Your task to perform on an android device: What's the weather? Image 0: 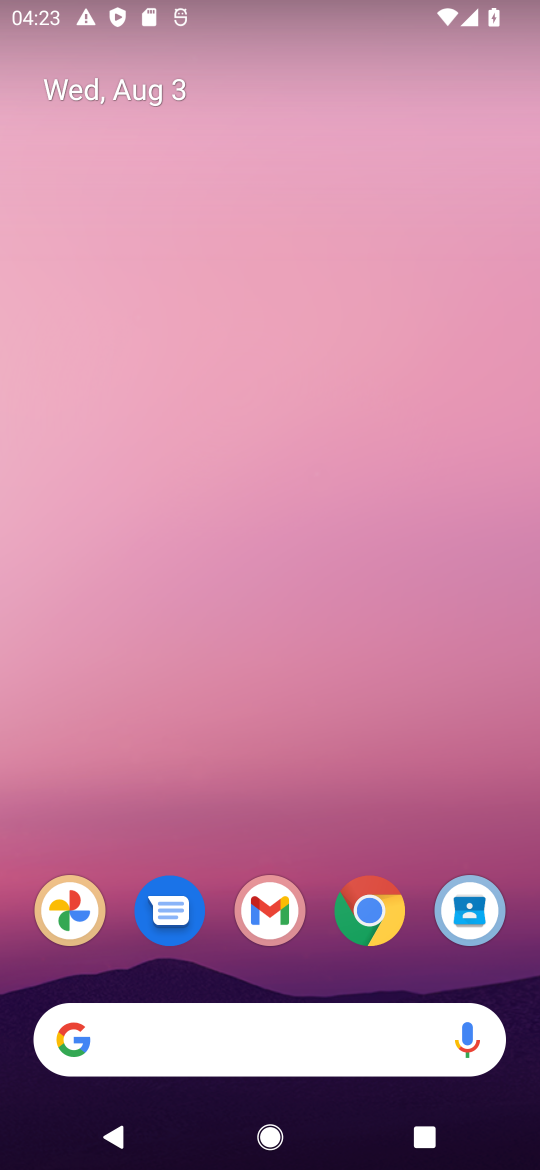
Step 0: press home button
Your task to perform on an android device: What's the weather? Image 1: 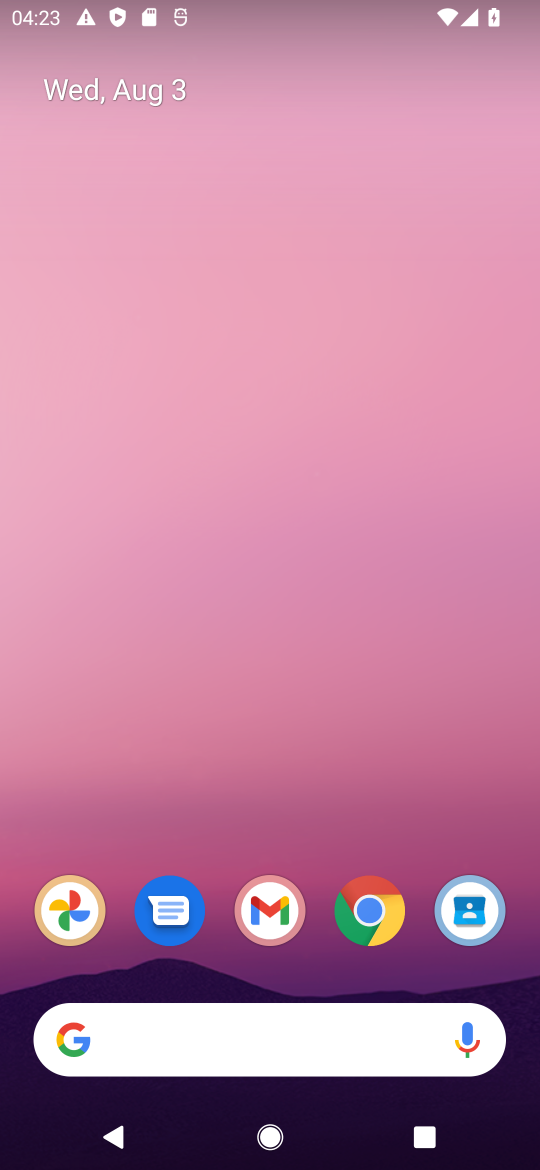
Step 1: drag from (298, 843) to (282, 41)
Your task to perform on an android device: What's the weather? Image 2: 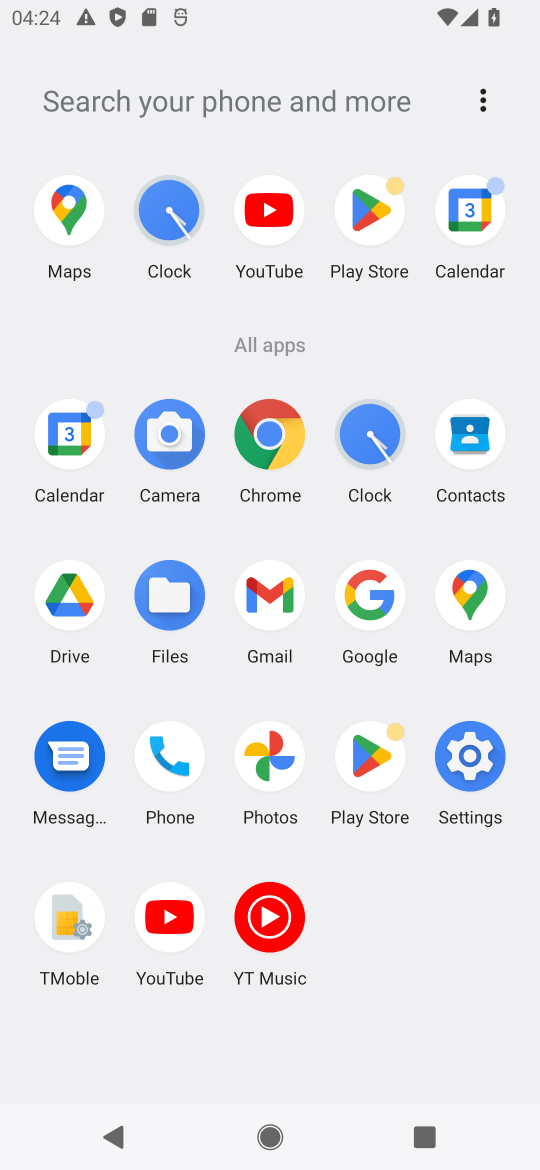
Step 2: click (364, 585)
Your task to perform on an android device: What's the weather? Image 3: 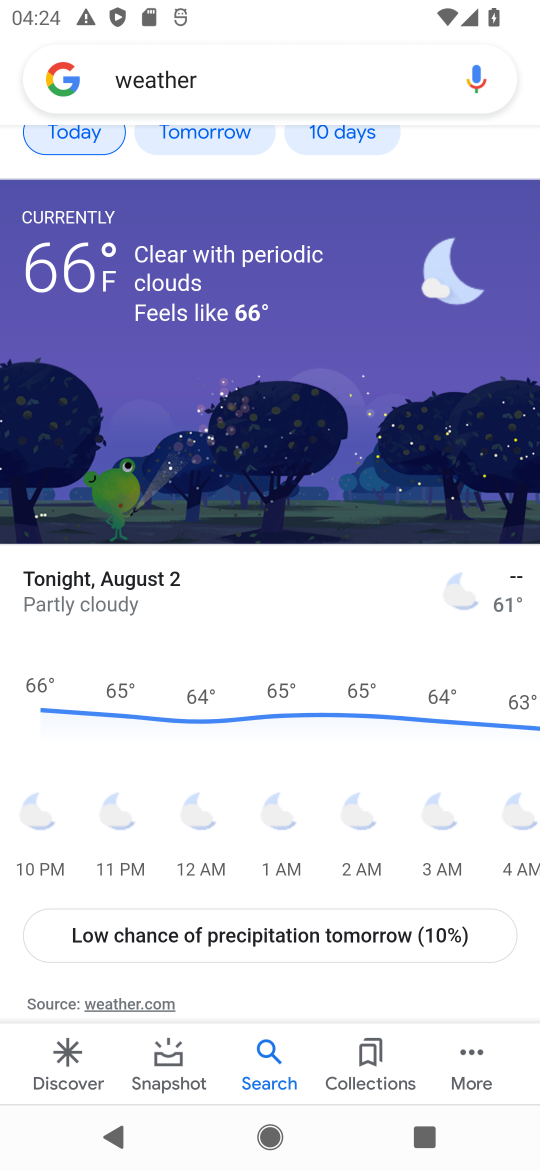
Step 3: task complete